Your task to perform on an android device: delete location history Image 0: 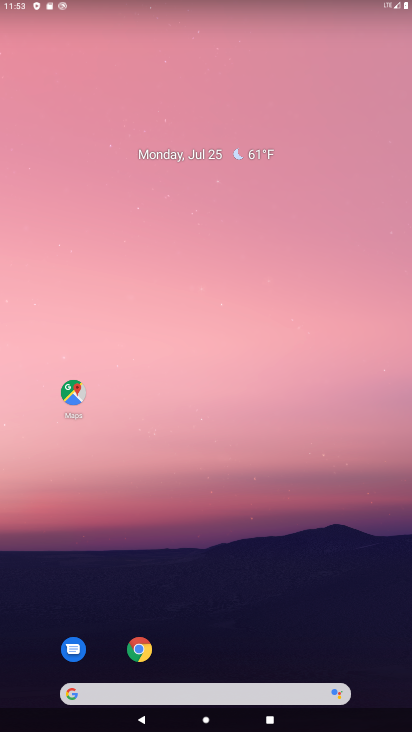
Step 0: click (234, 127)
Your task to perform on an android device: delete location history Image 1: 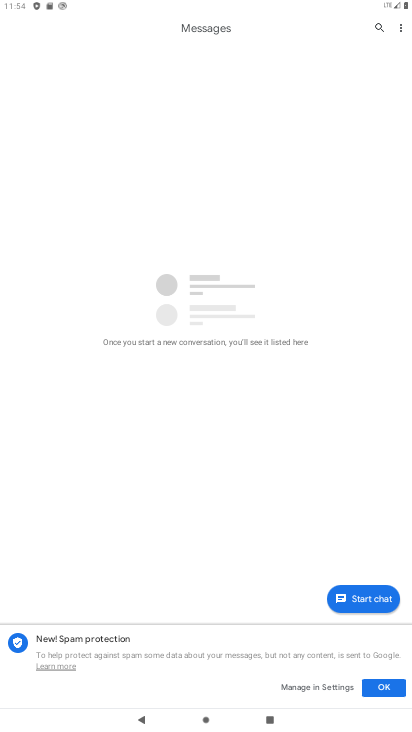
Step 1: press home button
Your task to perform on an android device: delete location history Image 2: 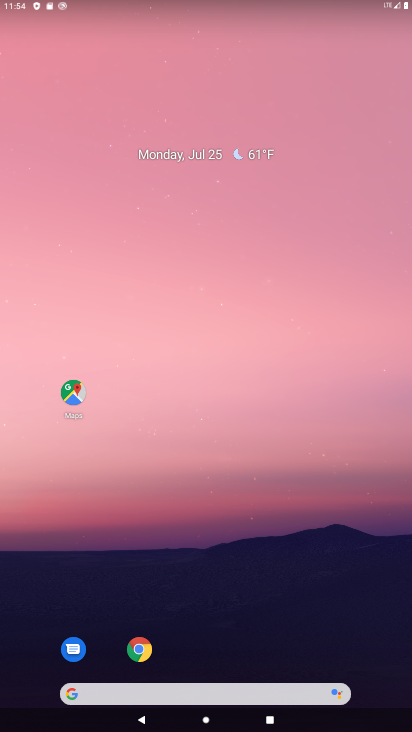
Step 2: drag from (225, 668) to (349, 51)
Your task to perform on an android device: delete location history Image 3: 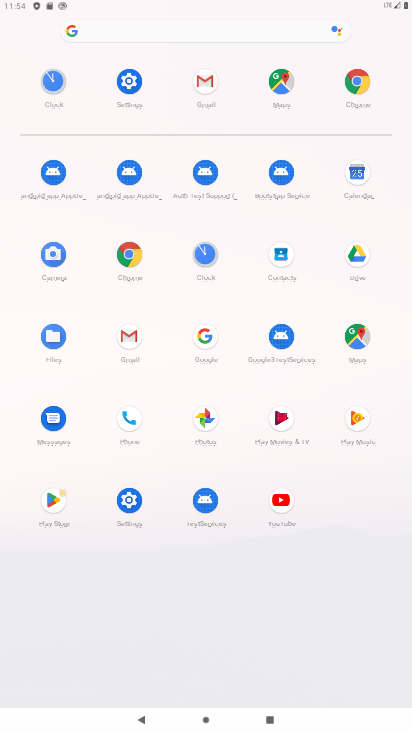
Step 3: click (357, 344)
Your task to perform on an android device: delete location history Image 4: 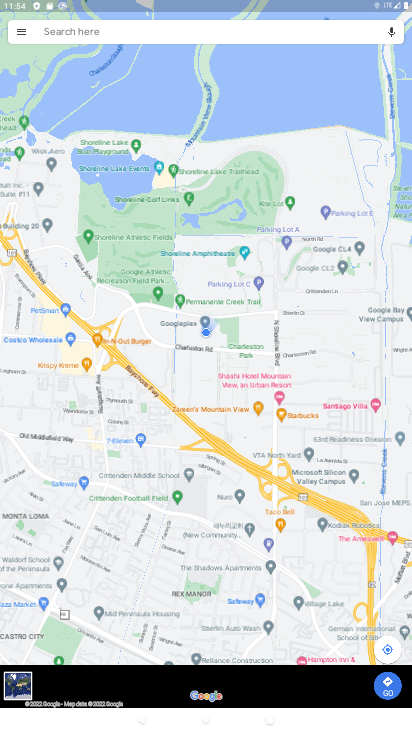
Step 4: click (14, 28)
Your task to perform on an android device: delete location history Image 5: 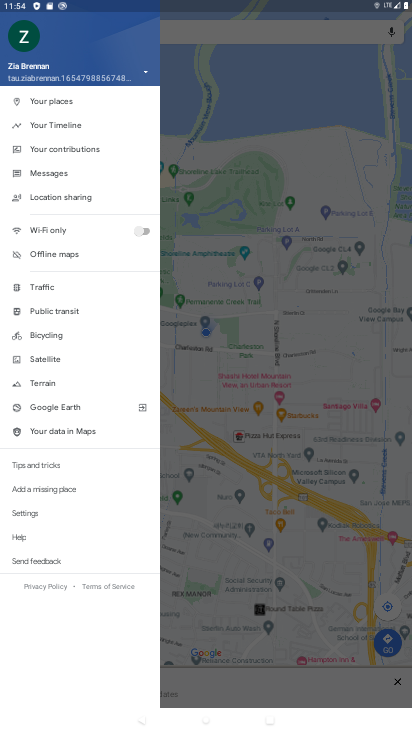
Step 5: click (71, 130)
Your task to perform on an android device: delete location history Image 6: 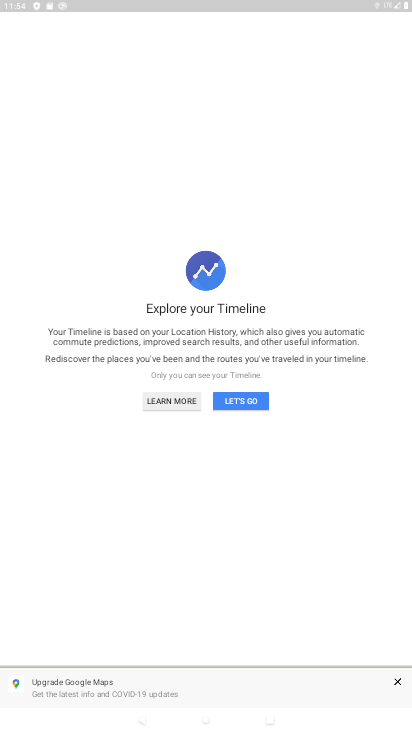
Step 6: click (247, 396)
Your task to perform on an android device: delete location history Image 7: 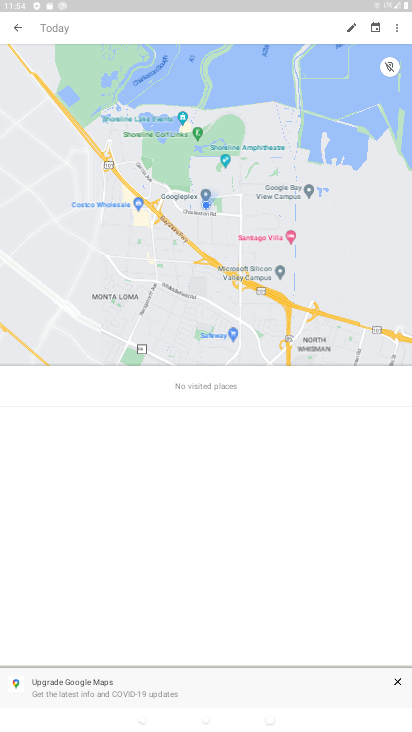
Step 7: click (401, 29)
Your task to perform on an android device: delete location history Image 8: 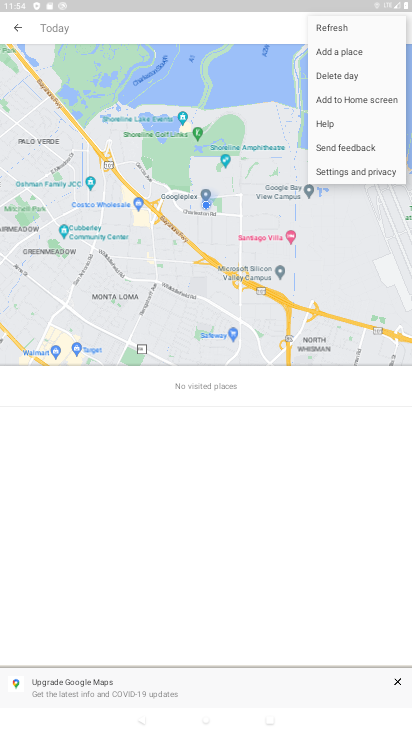
Step 8: click (359, 173)
Your task to perform on an android device: delete location history Image 9: 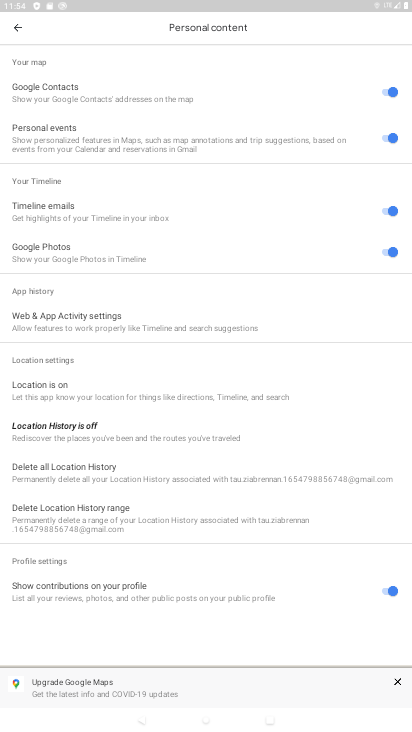
Step 9: click (61, 481)
Your task to perform on an android device: delete location history Image 10: 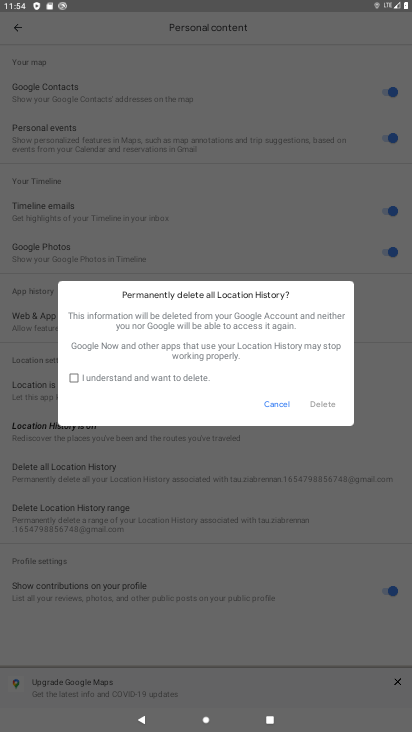
Step 10: click (72, 384)
Your task to perform on an android device: delete location history Image 11: 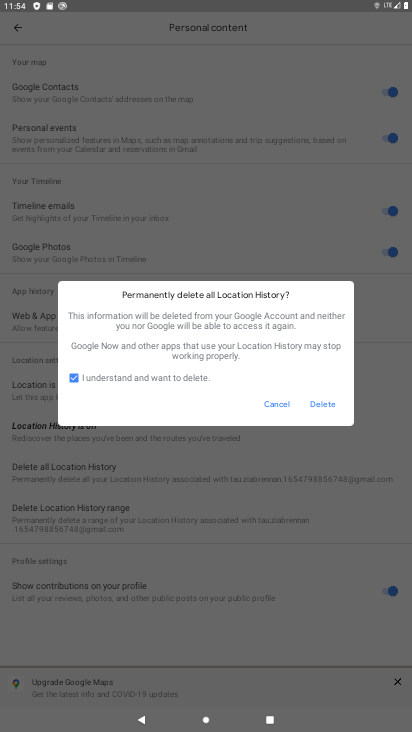
Step 11: click (323, 401)
Your task to perform on an android device: delete location history Image 12: 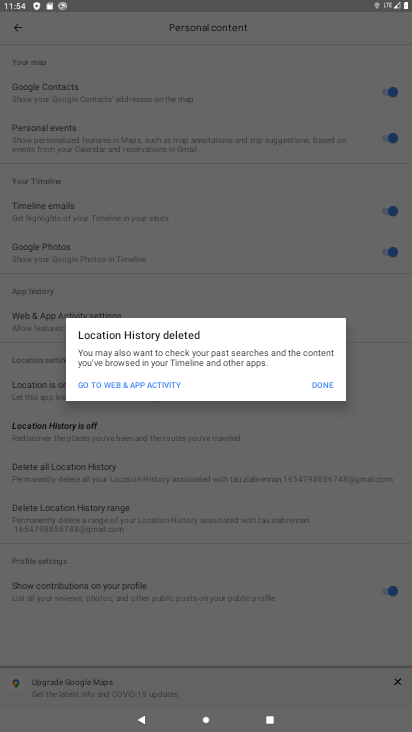
Step 12: click (320, 390)
Your task to perform on an android device: delete location history Image 13: 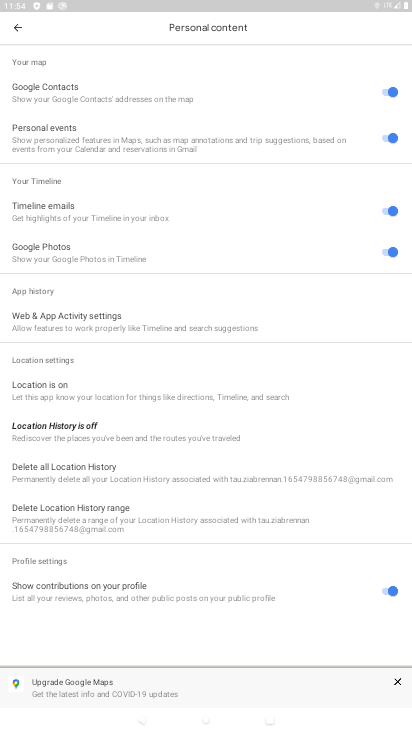
Step 13: task complete